Your task to perform on an android device: find snoozed emails in the gmail app Image 0: 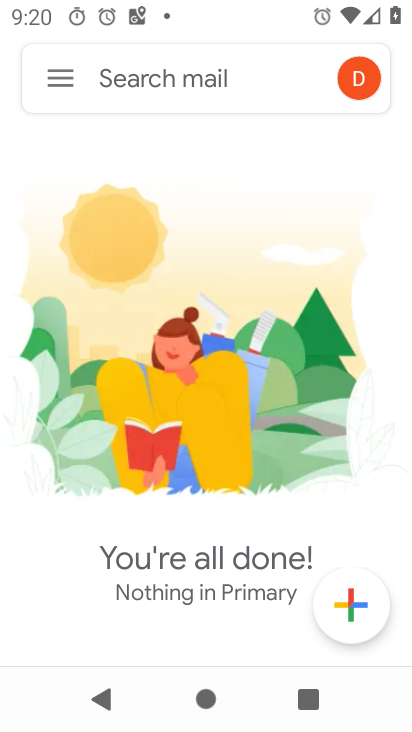
Step 0: click (52, 64)
Your task to perform on an android device: find snoozed emails in the gmail app Image 1: 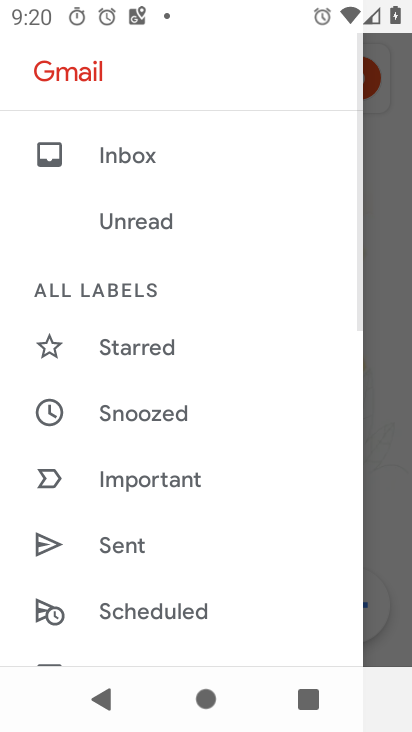
Step 1: click (194, 408)
Your task to perform on an android device: find snoozed emails in the gmail app Image 2: 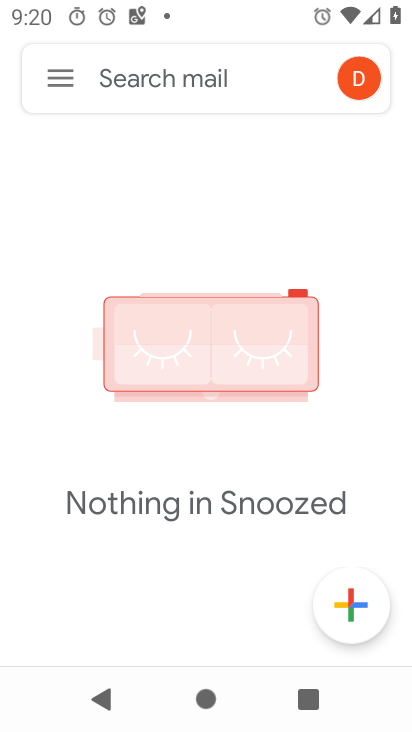
Step 2: task complete